Your task to perform on an android device: Open Chrome and go to settings Image 0: 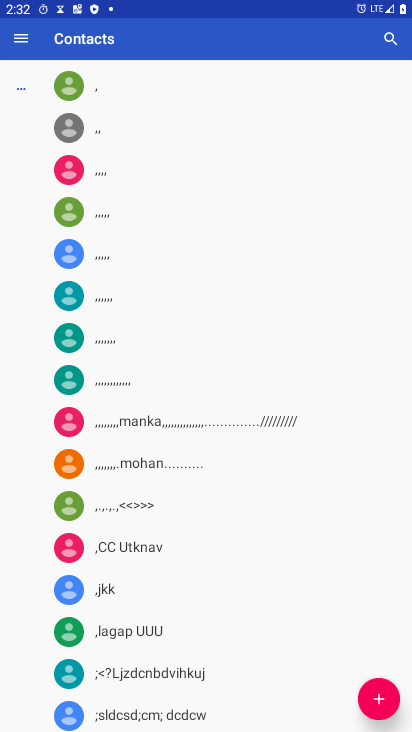
Step 0: press home button
Your task to perform on an android device: Open Chrome and go to settings Image 1: 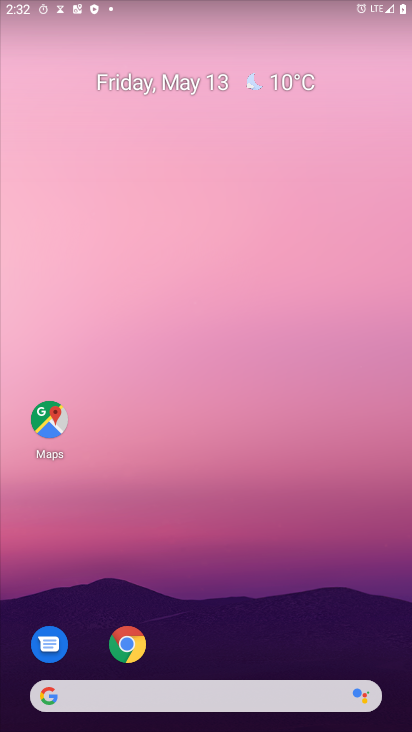
Step 1: click (127, 644)
Your task to perform on an android device: Open Chrome and go to settings Image 2: 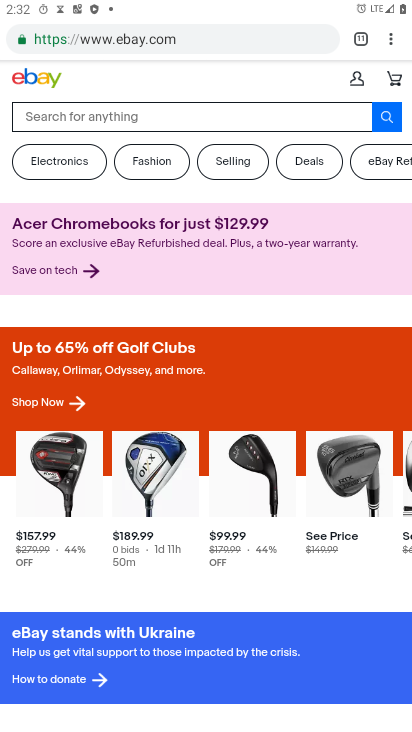
Step 2: click (392, 43)
Your task to perform on an android device: Open Chrome and go to settings Image 3: 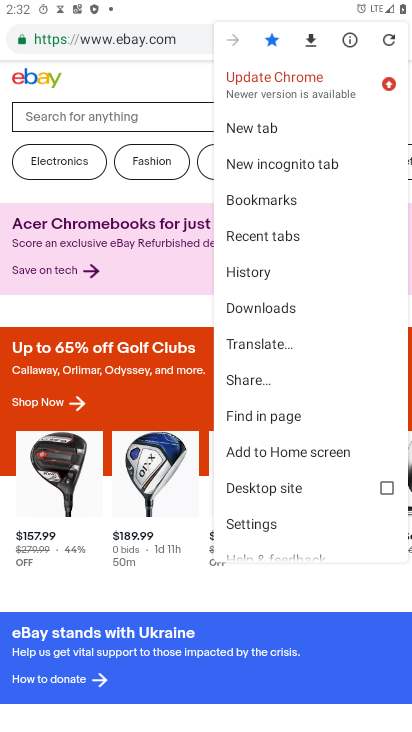
Step 3: click (248, 520)
Your task to perform on an android device: Open Chrome and go to settings Image 4: 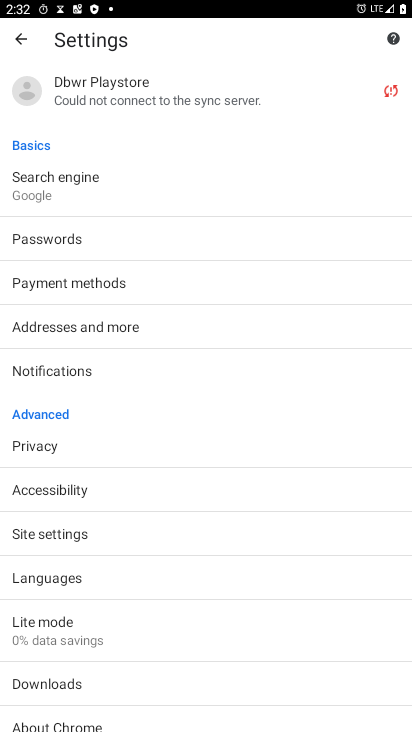
Step 4: task complete